Your task to perform on an android device: Open the Play Movies app and select the watchlist tab. Image 0: 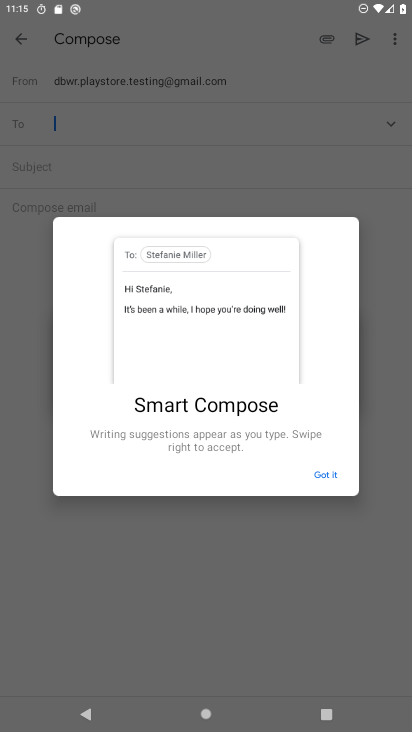
Step 0: press home button
Your task to perform on an android device: Open the Play Movies app and select the watchlist tab. Image 1: 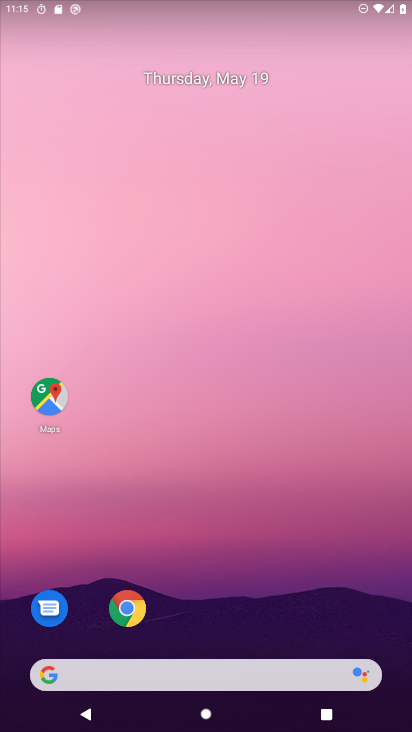
Step 1: drag from (408, 543) to (411, 185)
Your task to perform on an android device: Open the Play Movies app and select the watchlist tab. Image 2: 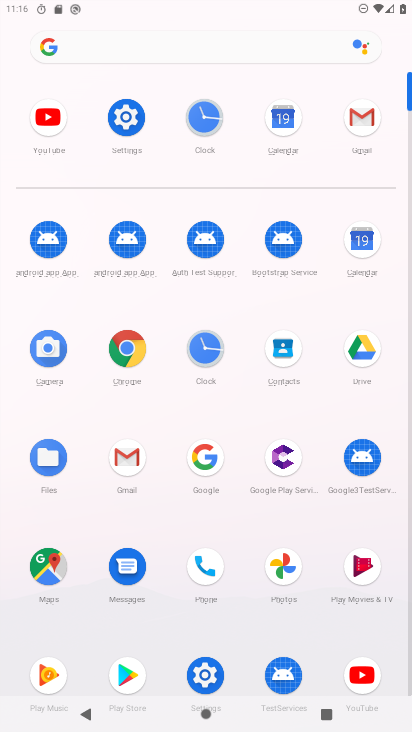
Step 2: click (357, 587)
Your task to perform on an android device: Open the Play Movies app and select the watchlist tab. Image 3: 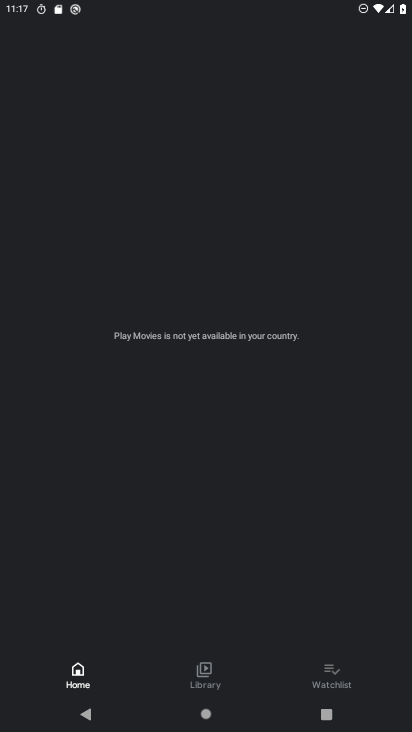
Step 3: click (333, 677)
Your task to perform on an android device: Open the Play Movies app and select the watchlist tab. Image 4: 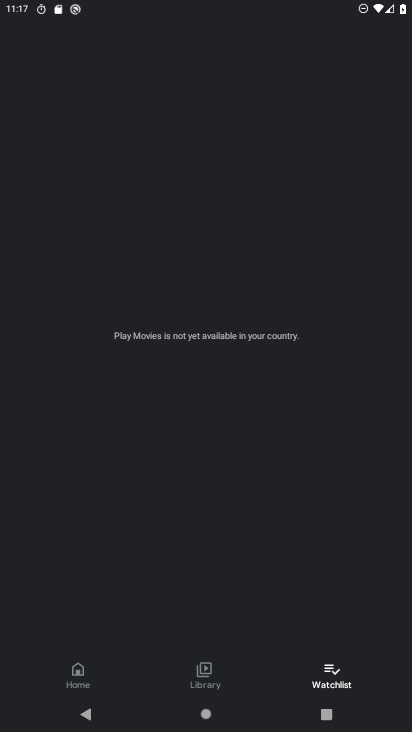
Step 4: task complete